Your task to perform on an android device: Check the weather Image 0: 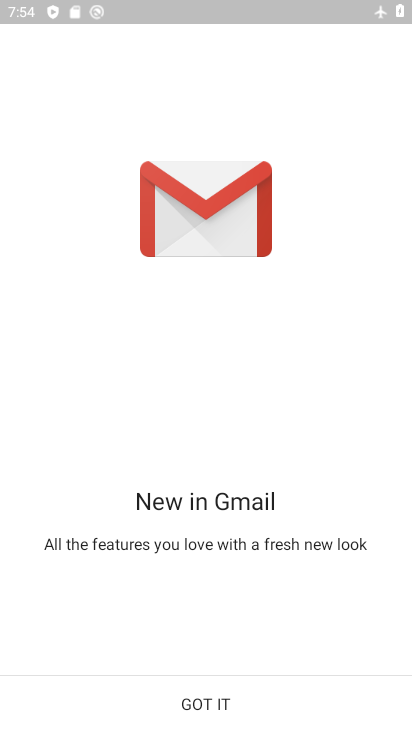
Step 0: click (205, 698)
Your task to perform on an android device: Check the weather Image 1: 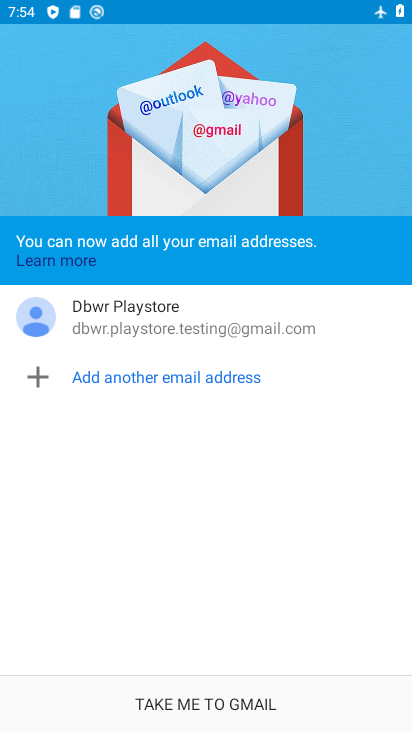
Step 1: press home button
Your task to perform on an android device: Check the weather Image 2: 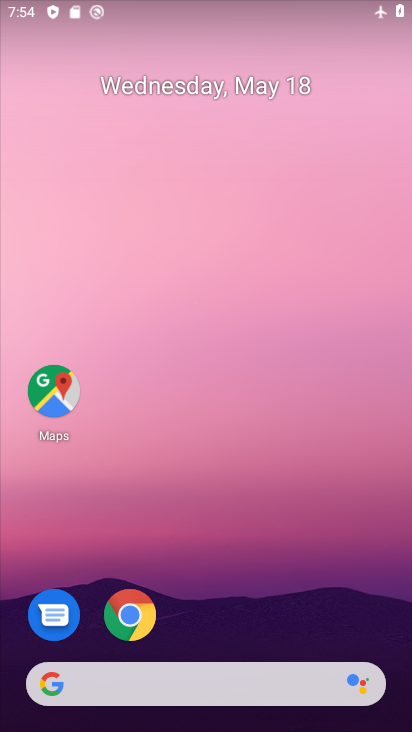
Step 2: click (114, 689)
Your task to perform on an android device: Check the weather Image 3: 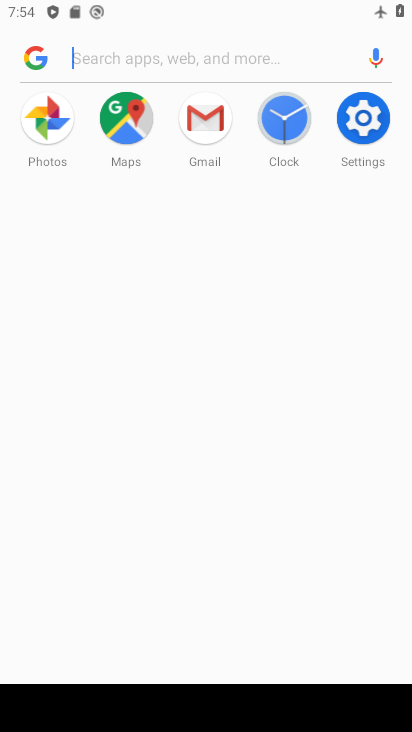
Step 3: click (37, 54)
Your task to perform on an android device: Check the weather Image 4: 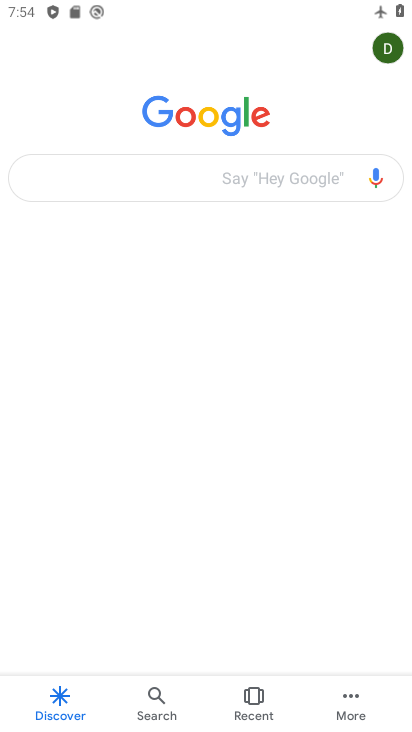
Step 4: click (241, 182)
Your task to perform on an android device: Check the weather Image 5: 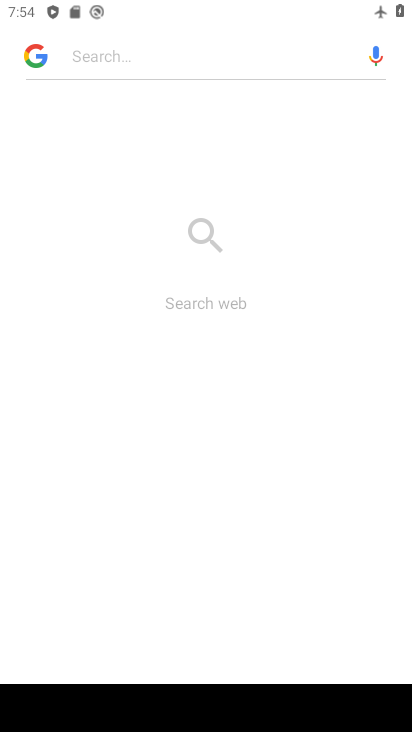
Step 5: type "weather"
Your task to perform on an android device: Check the weather Image 6: 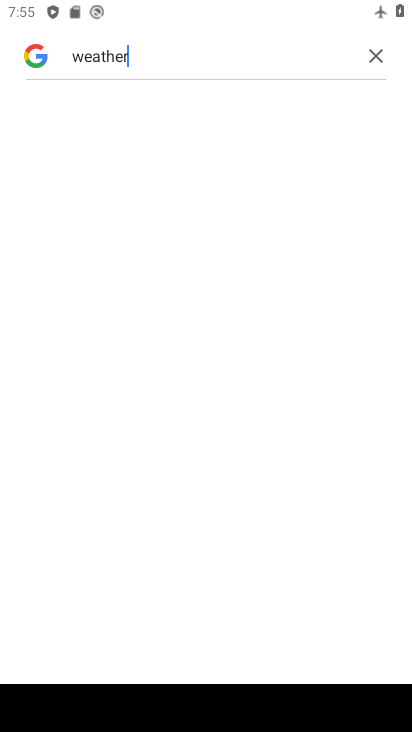
Step 6: task complete